Your task to perform on an android device: Go to Google Image 0: 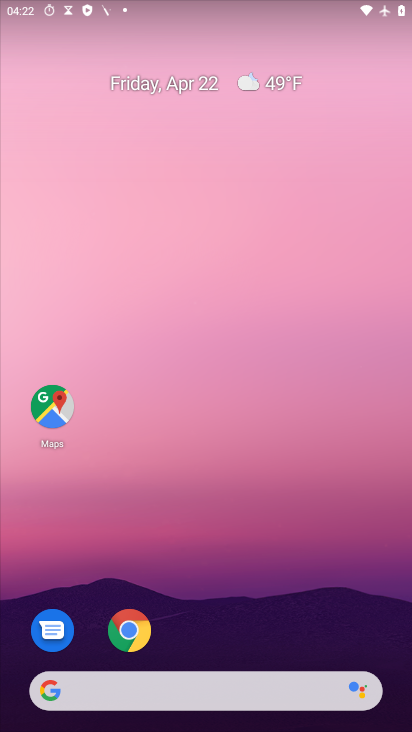
Step 0: drag from (337, 547) to (268, 44)
Your task to perform on an android device: Go to Google Image 1: 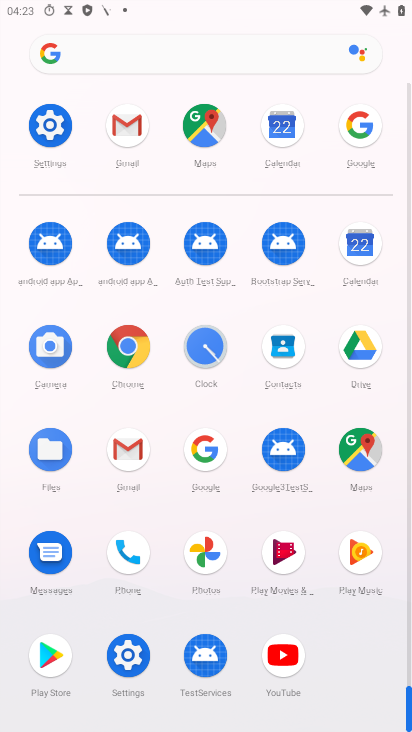
Step 1: click (126, 346)
Your task to perform on an android device: Go to Google Image 2: 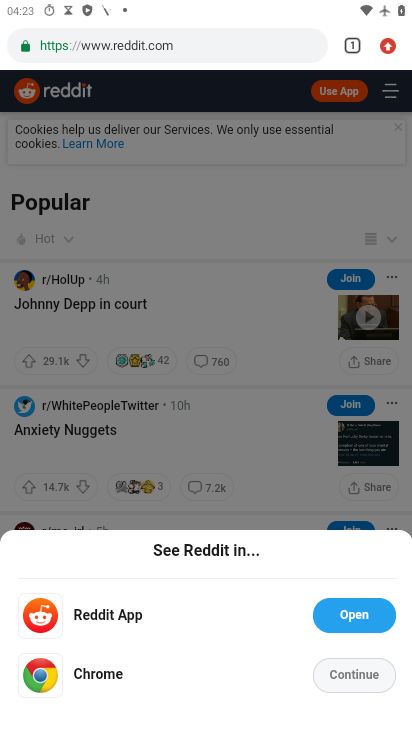
Step 2: click (200, 48)
Your task to perform on an android device: Go to Google Image 3: 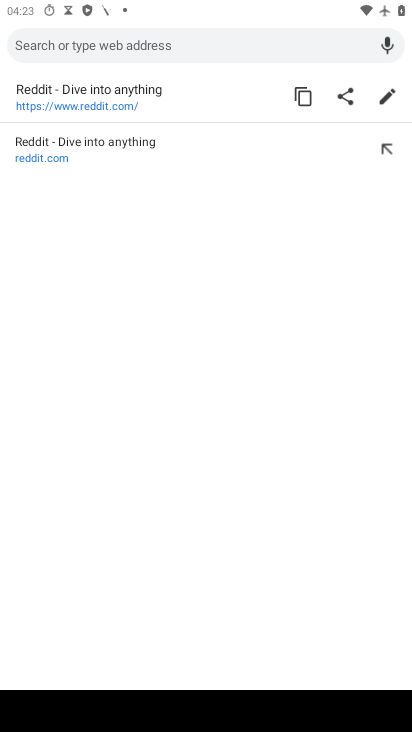
Step 3: type " Google"
Your task to perform on an android device: Go to Google Image 4: 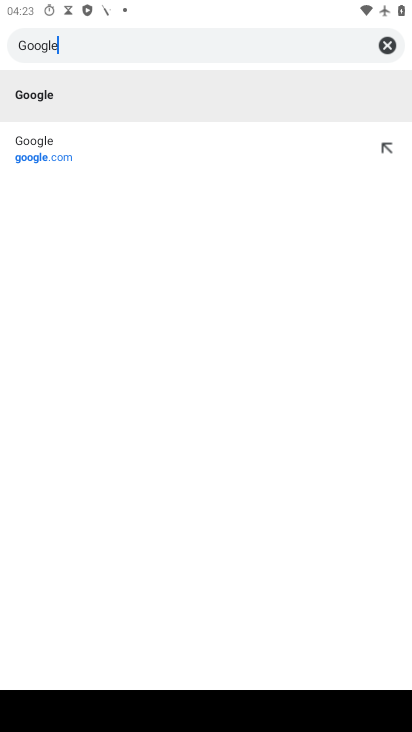
Step 4: type ""
Your task to perform on an android device: Go to Google Image 5: 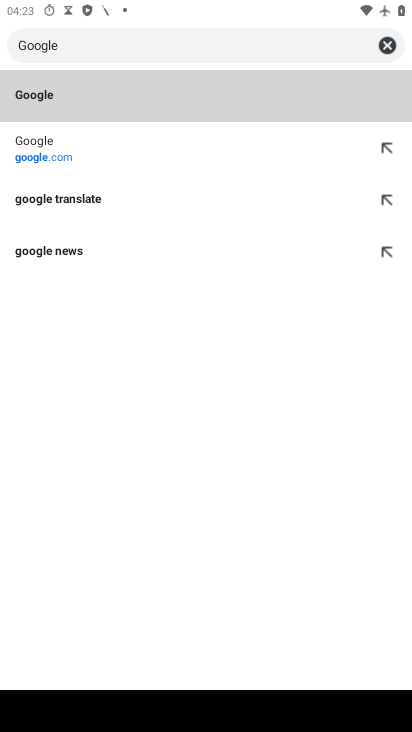
Step 5: click (51, 148)
Your task to perform on an android device: Go to Google Image 6: 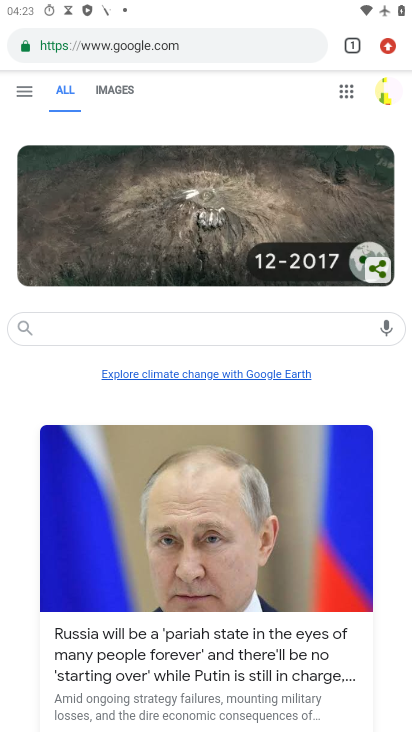
Step 6: task complete